Your task to perform on an android device: clear all cookies in the chrome app Image 0: 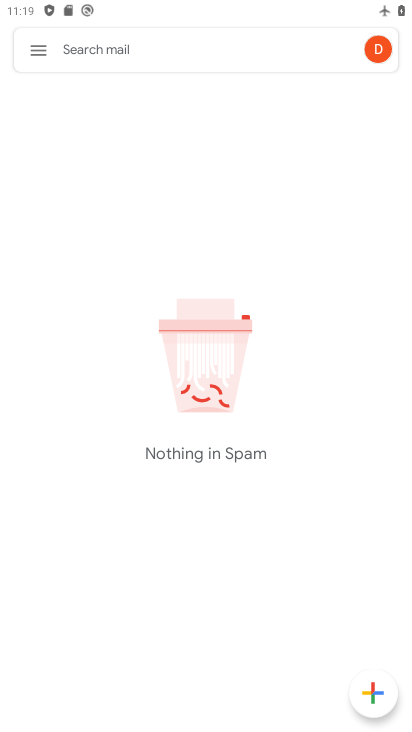
Step 0: press home button
Your task to perform on an android device: clear all cookies in the chrome app Image 1: 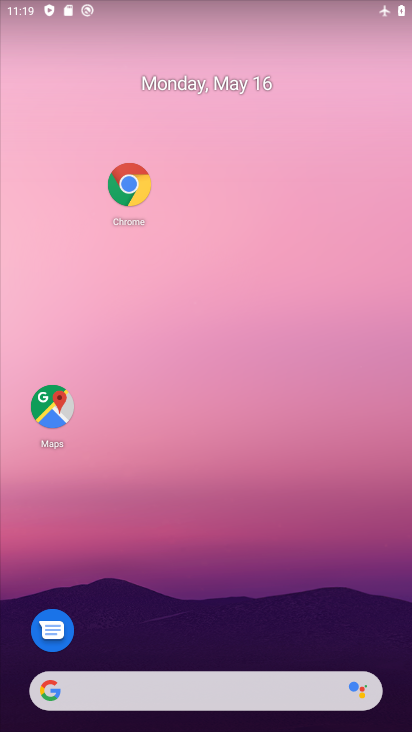
Step 1: click (120, 190)
Your task to perform on an android device: clear all cookies in the chrome app Image 2: 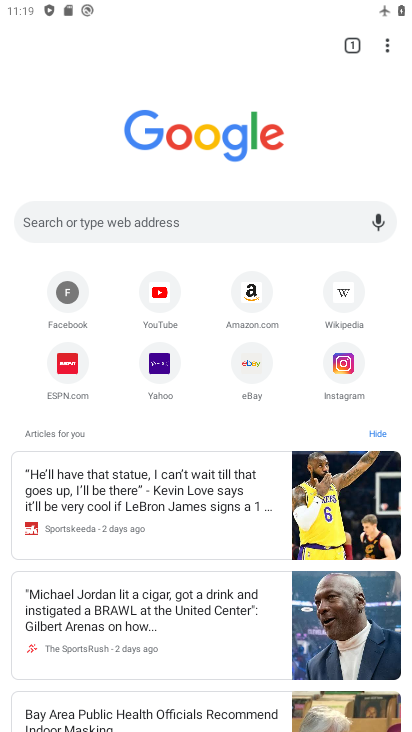
Step 2: click (388, 42)
Your task to perform on an android device: clear all cookies in the chrome app Image 3: 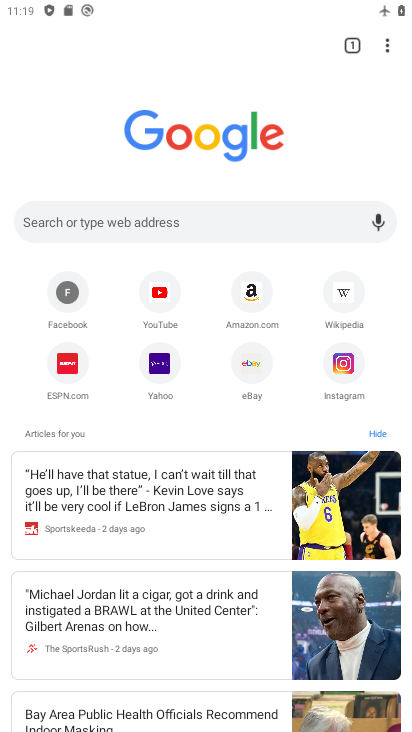
Step 3: click (393, 45)
Your task to perform on an android device: clear all cookies in the chrome app Image 4: 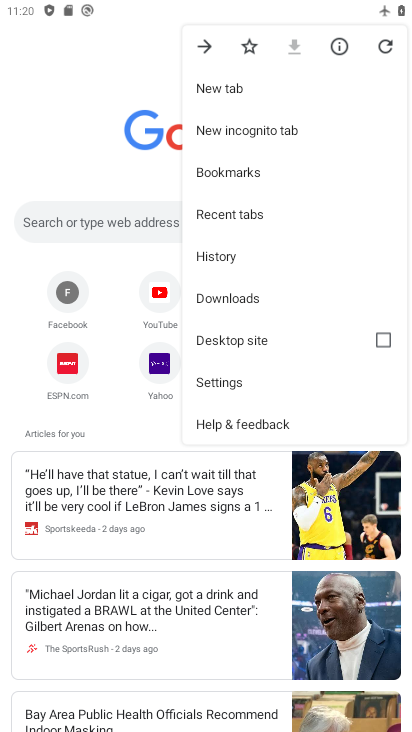
Step 4: click (387, 41)
Your task to perform on an android device: clear all cookies in the chrome app Image 5: 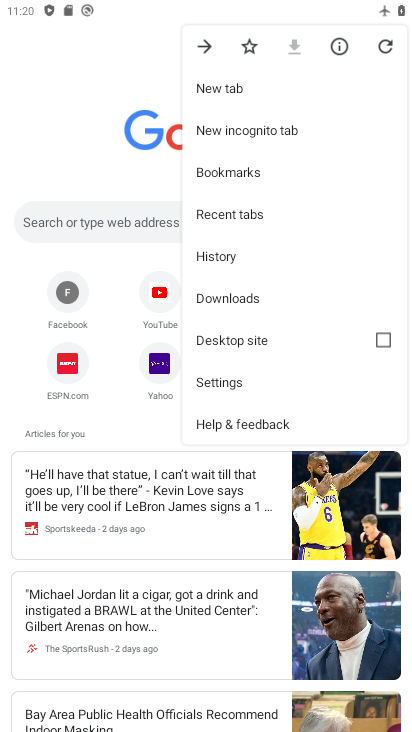
Step 5: click (206, 379)
Your task to perform on an android device: clear all cookies in the chrome app Image 6: 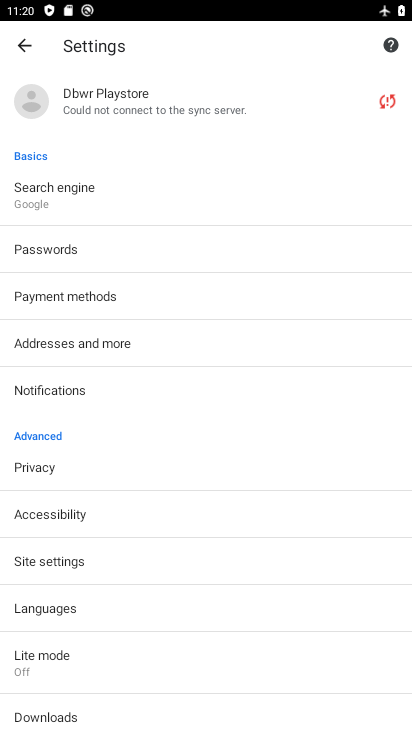
Step 6: click (37, 457)
Your task to perform on an android device: clear all cookies in the chrome app Image 7: 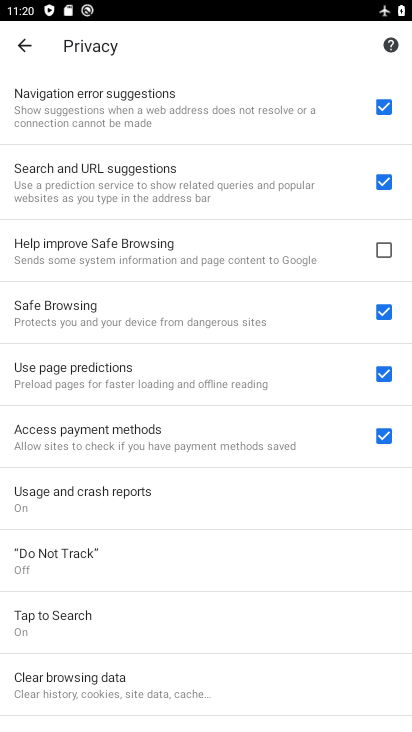
Step 7: click (54, 470)
Your task to perform on an android device: clear all cookies in the chrome app Image 8: 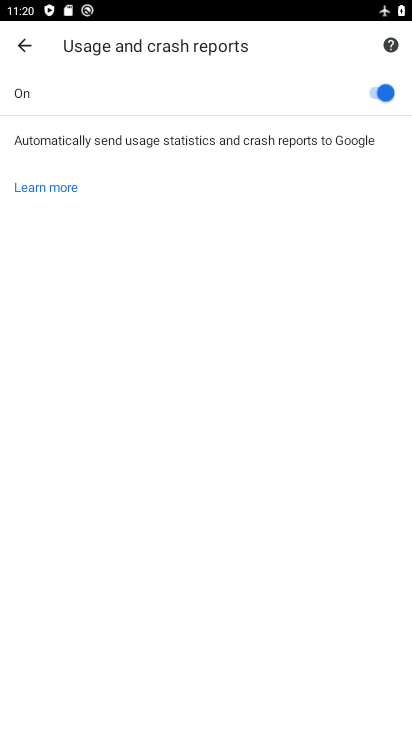
Step 8: click (115, 685)
Your task to perform on an android device: clear all cookies in the chrome app Image 9: 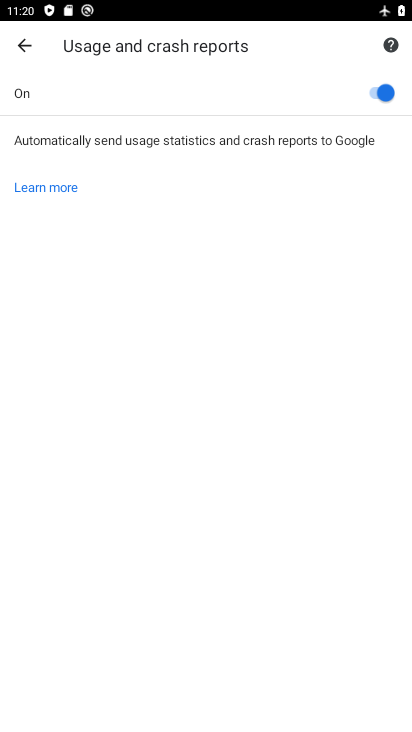
Step 9: click (16, 41)
Your task to perform on an android device: clear all cookies in the chrome app Image 10: 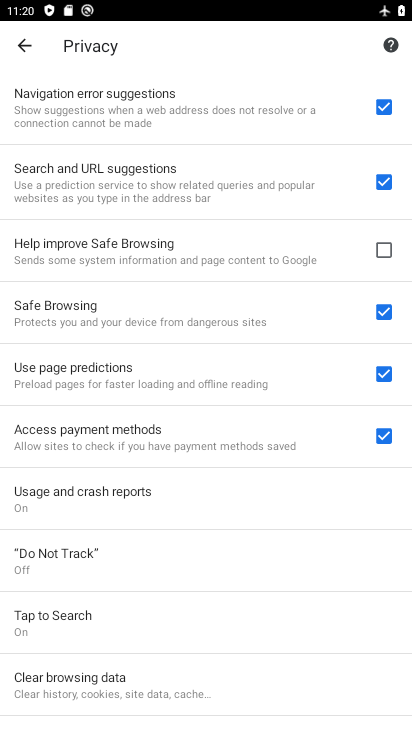
Step 10: click (67, 685)
Your task to perform on an android device: clear all cookies in the chrome app Image 11: 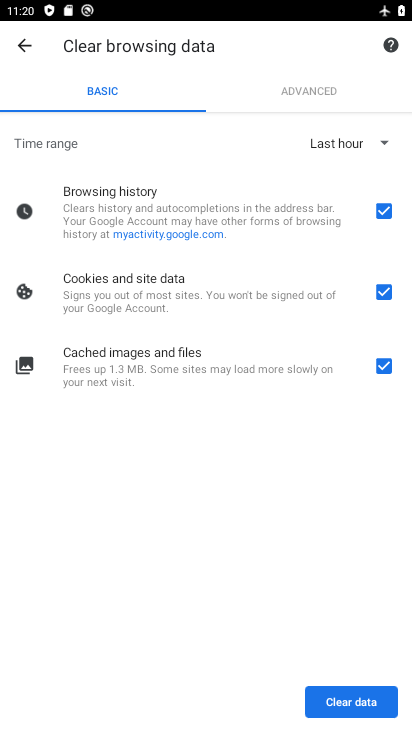
Step 11: click (384, 371)
Your task to perform on an android device: clear all cookies in the chrome app Image 12: 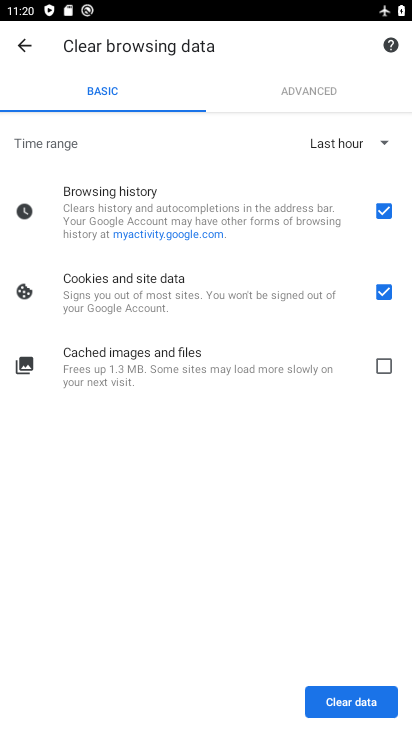
Step 12: click (379, 203)
Your task to perform on an android device: clear all cookies in the chrome app Image 13: 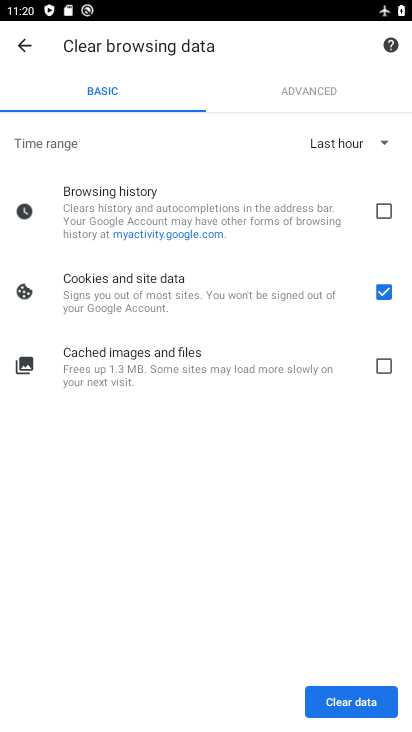
Step 13: click (352, 700)
Your task to perform on an android device: clear all cookies in the chrome app Image 14: 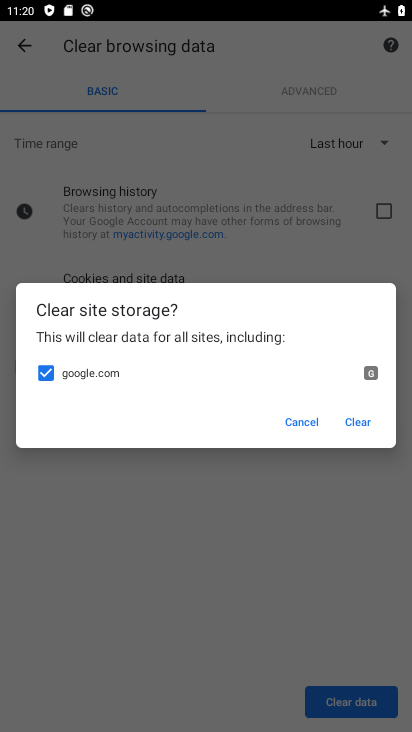
Step 14: click (349, 424)
Your task to perform on an android device: clear all cookies in the chrome app Image 15: 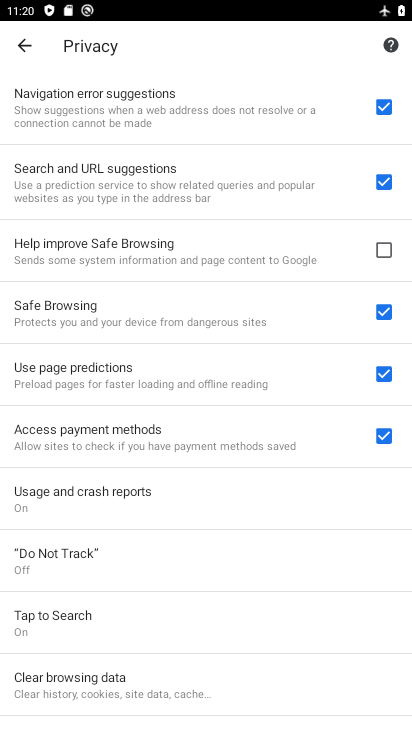
Step 15: task complete